Your task to perform on an android device: Open my contact list Image 0: 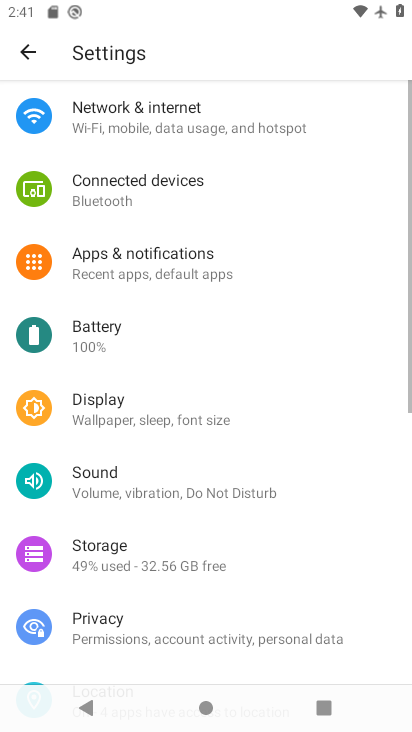
Step 0: press home button
Your task to perform on an android device: Open my contact list Image 1: 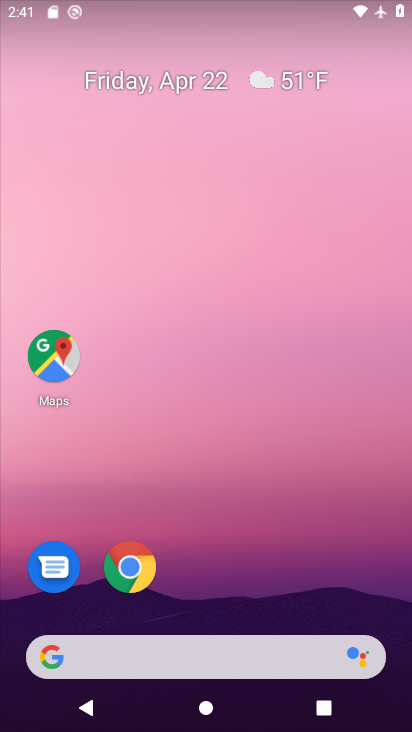
Step 1: drag from (244, 603) to (131, 161)
Your task to perform on an android device: Open my contact list Image 2: 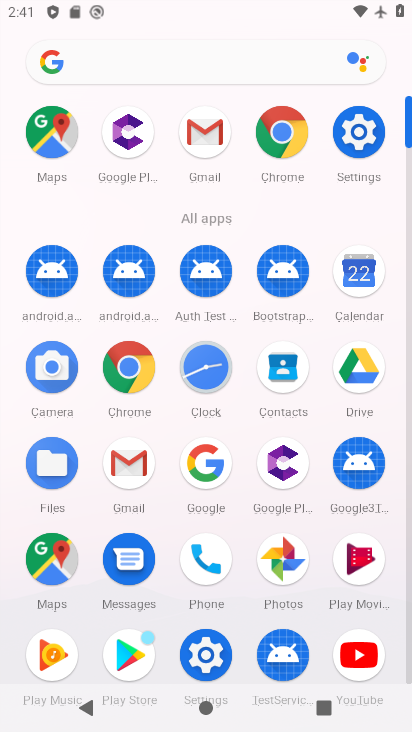
Step 2: click (281, 354)
Your task to perform on an android device: Open my contact list Image 3: 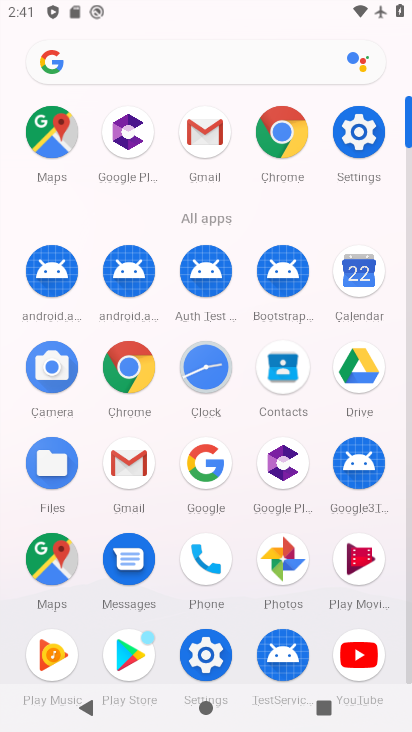
Step 3: click (281, 354)
Your task to perform on an android device: Open my contact list Image 4: 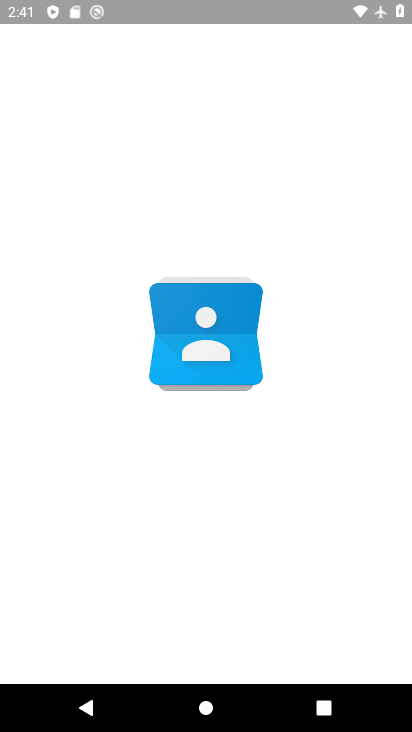
Step 4: click (281, 354)
Your task to perform on an android device: Open my contact list Image 5: 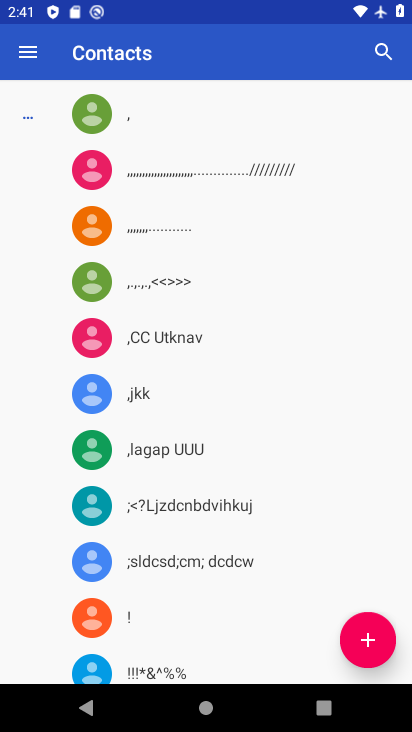
Step 5: click (360, 642)
Your task to perform on an android device: Open my contact list Image 6: 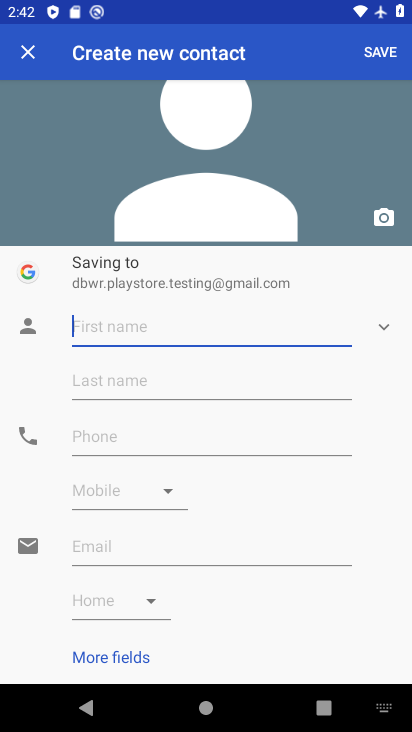
Step 6: type "kajalika"
Your task to perform on an android device: Open my contact list Image 7: 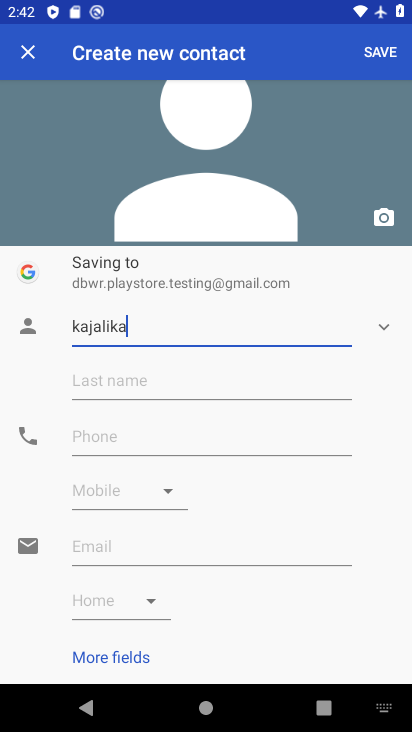
Step 7: click (106, 440)
Your task to perform on an android device: Open my contact list Image 8: 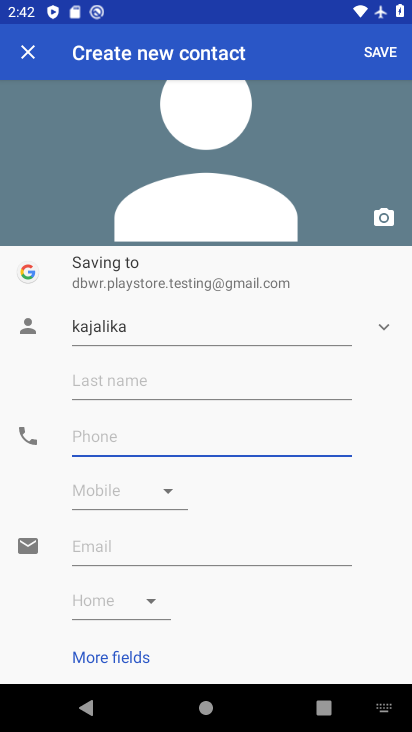
Step 8: click (106, 440)
Your task to perform on an android device: Open my contact list Image 9: 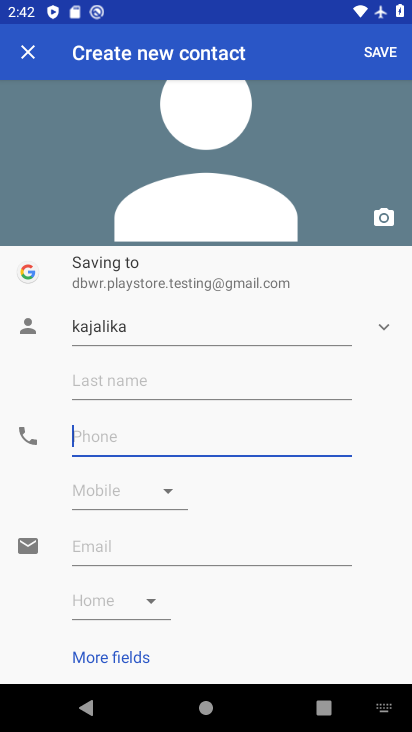
Step 9: type "9786445645"
Your task to perform on an android device: Open my contact list Image 10: 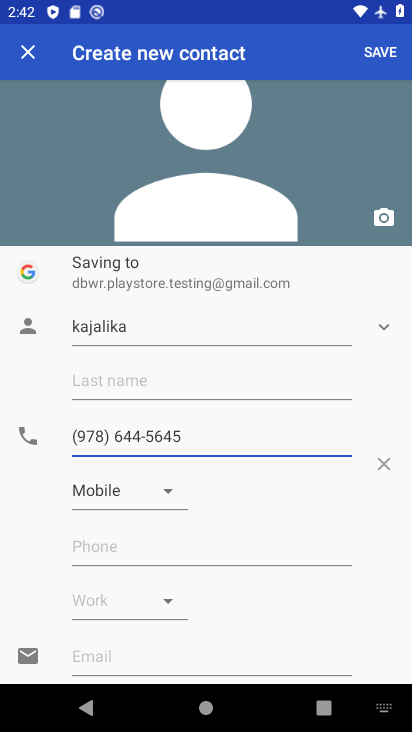
Step 10: click (383, 46)
Your task to perform on an android device: Open my contact list Image 11: 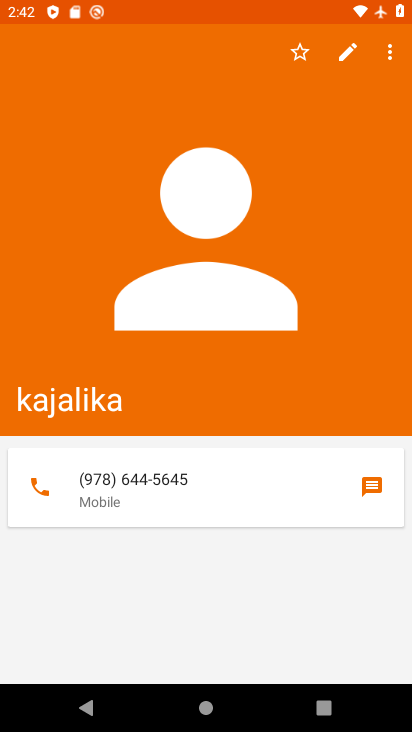
Step 11: task complete